Your task to perform on an android device: What's the weather? Image 0: 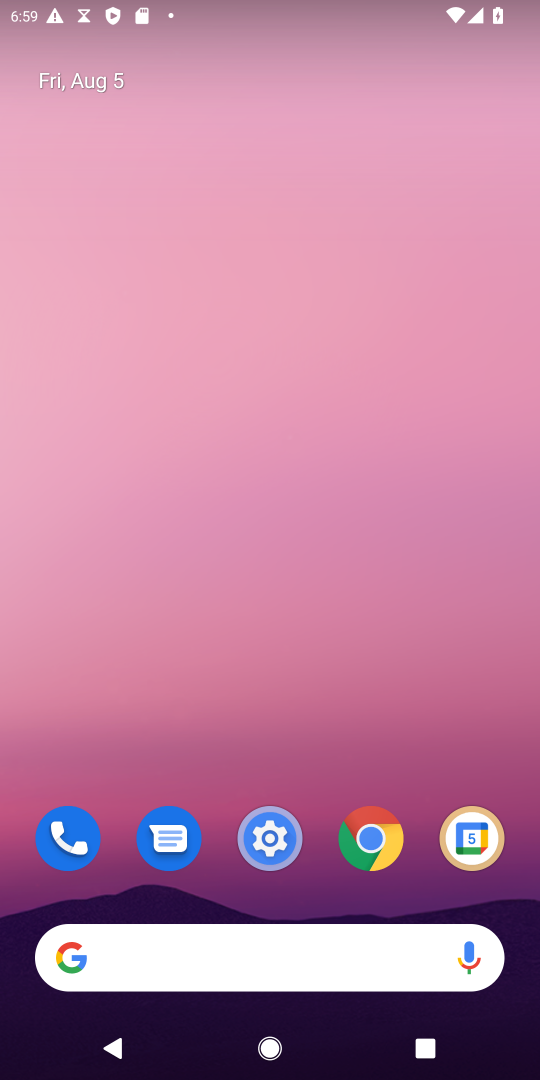
Step 0: press home button
Your task to perform on an android device: What's the weather? Image 1: 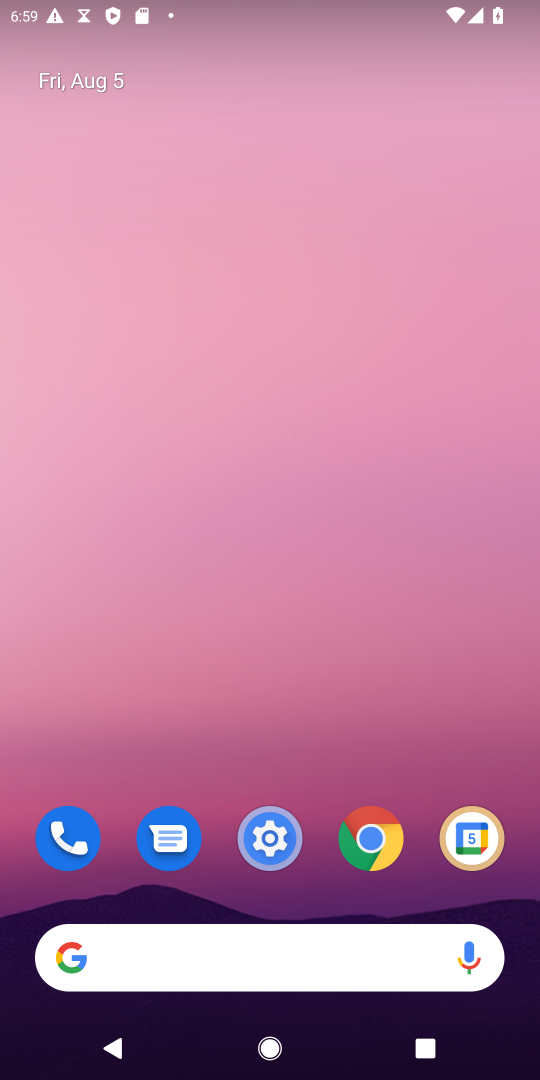
Step 1: click (75, 958)
Your task to perform on an android device: What's the weather? Image 2: 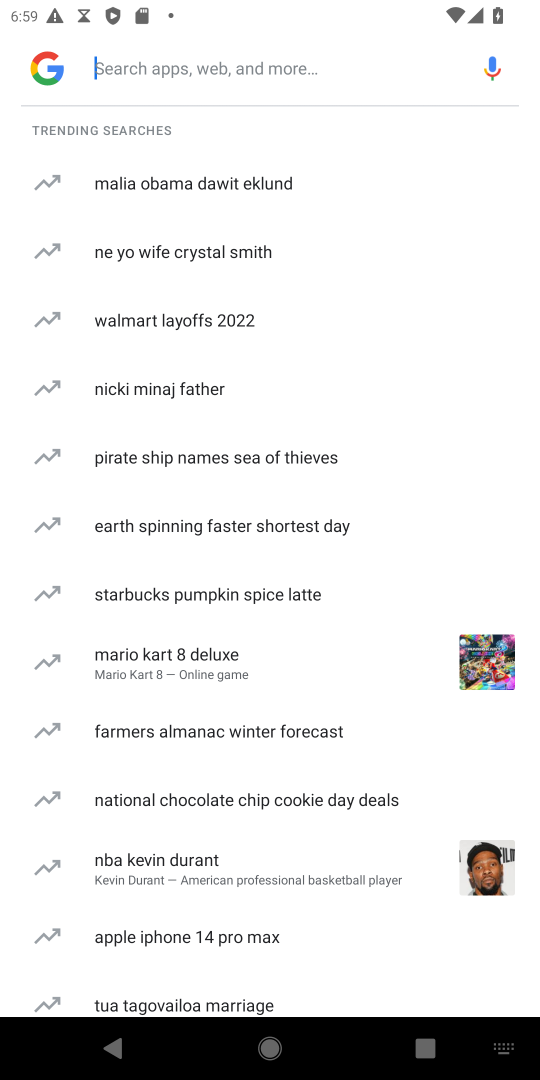
Step 2: type "What's the weather?"
Your task to perform on an android device: What's the weather? Image 3: 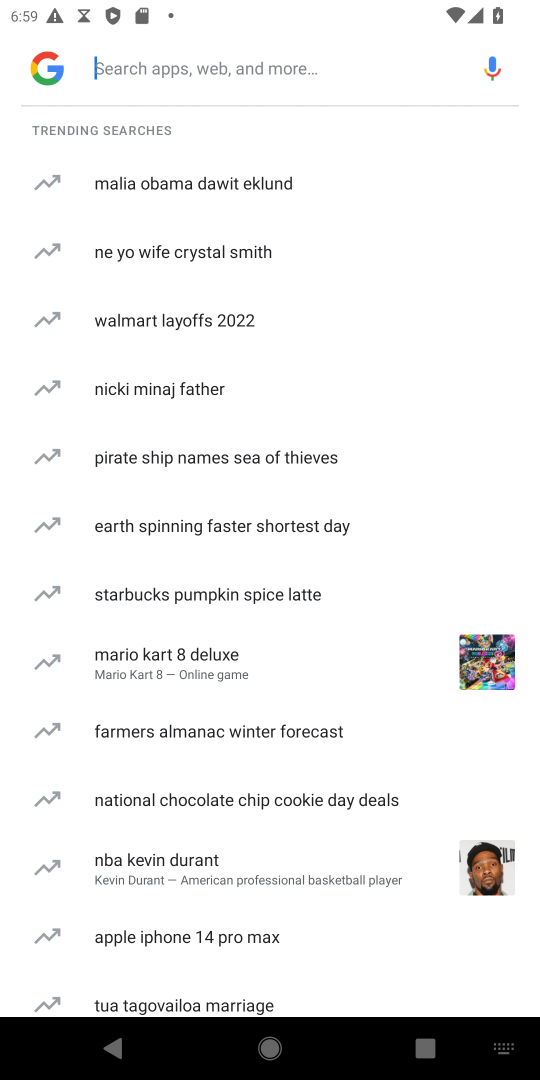
Step 3: click (104, 66)
Your task to perform on an android device: What's the weather? Image 4: 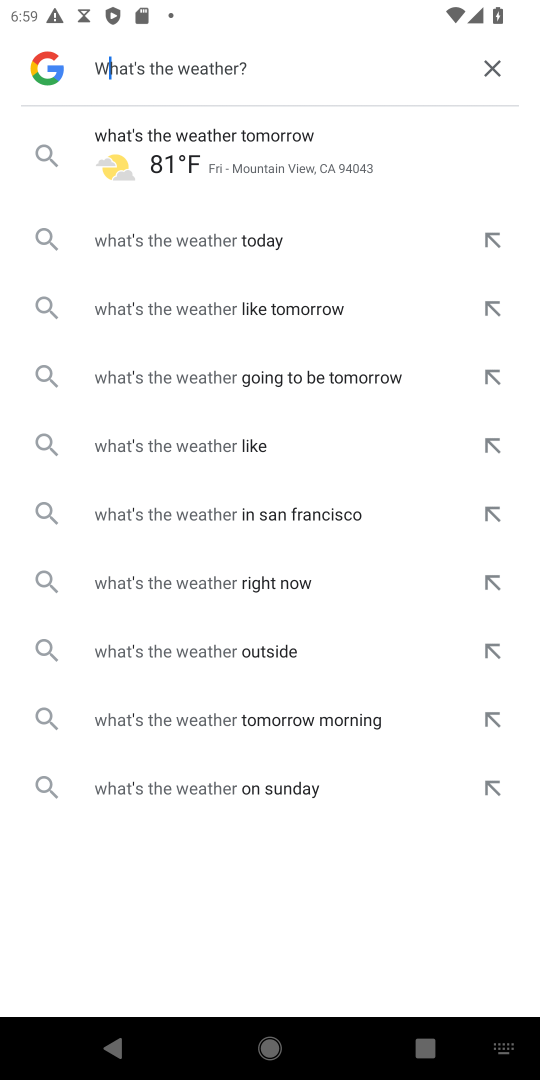
Step 4: press enter
Your task to perform on an android device: What's the weather? Image 5: 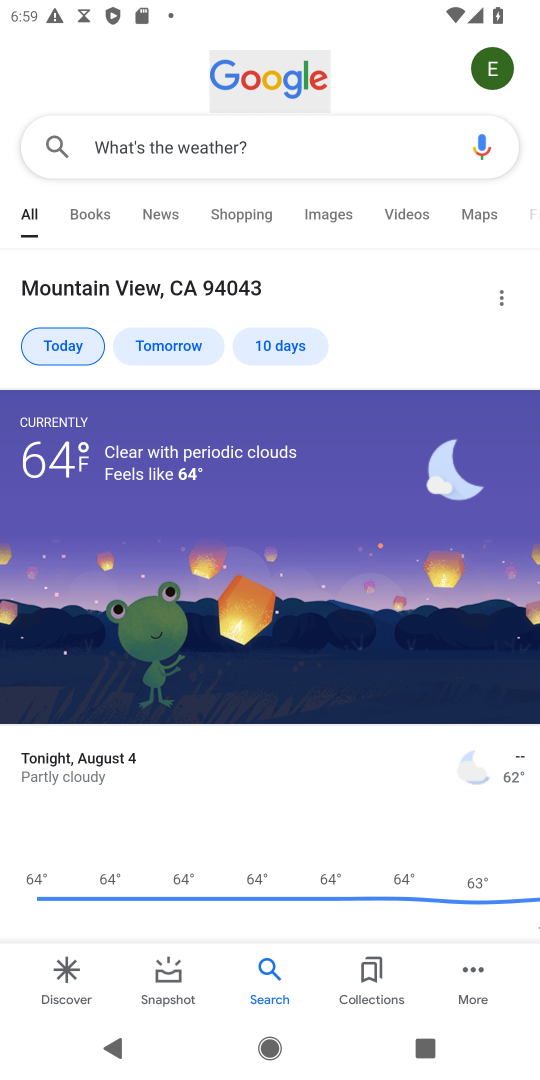
Step 5: task complete